Your task to perform on an android device: turn smart compose on in the gmail app Image 0: 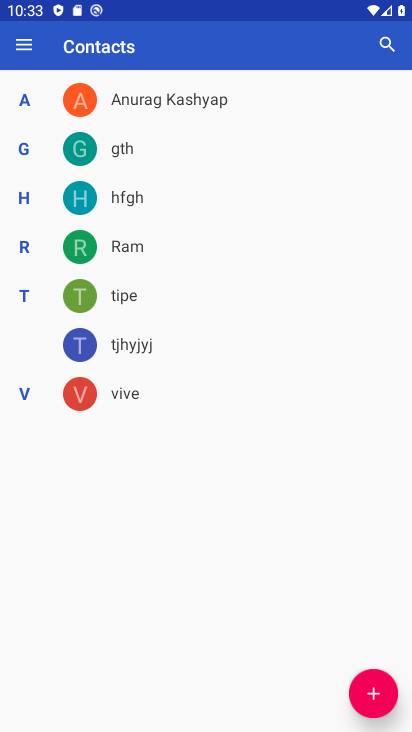
Step 0: press home button
Your task to perform on an android device: turn smart compose on in the gmail app Image 1: 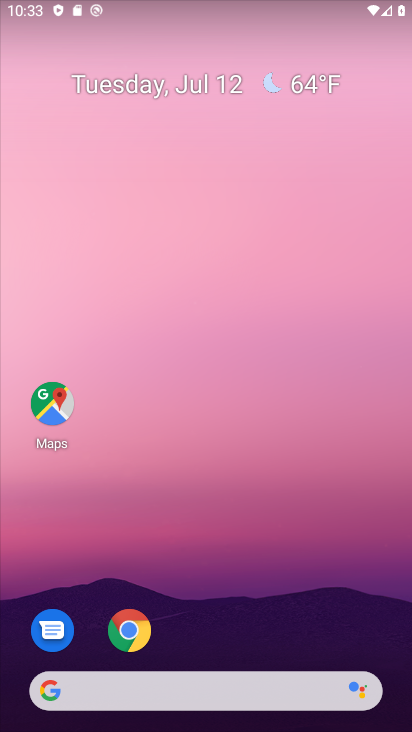
Step 1: drag from (351, 639) to (353, 140)
Your task to perform on an android device: turn smart compose on in the gmail app Image 2: 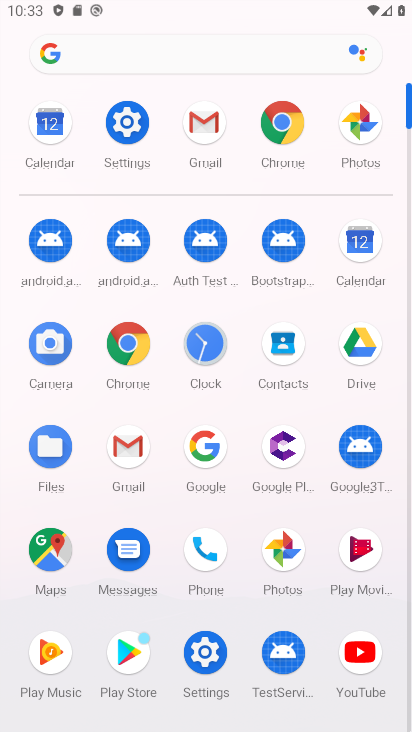
Step 2: click (131, 449)
Your task to perform on an android device: turn smart compose on in the gmail app Image 3: 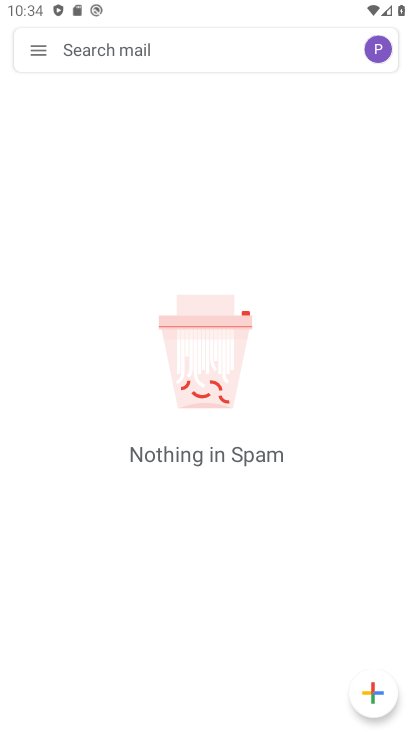
Step 3: click (41, 49)
Your task to perform on an android device: turn smart compose on in the gmail app Image 4: 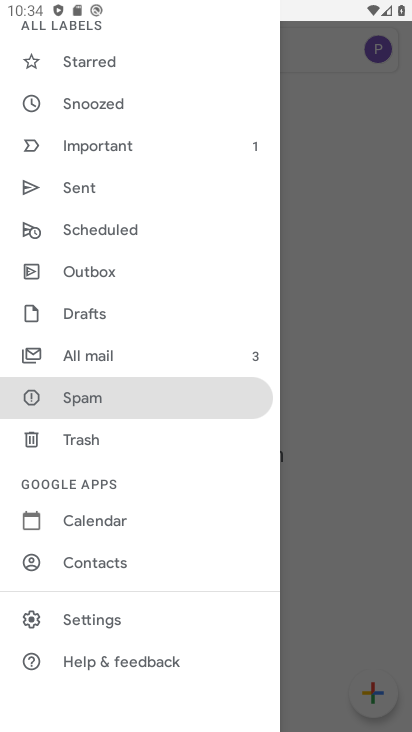
Step 4: drag from (201, 293) to (198, 199)
Your task to perform on an android device: turn smart compose on in the gmail app Image 5: 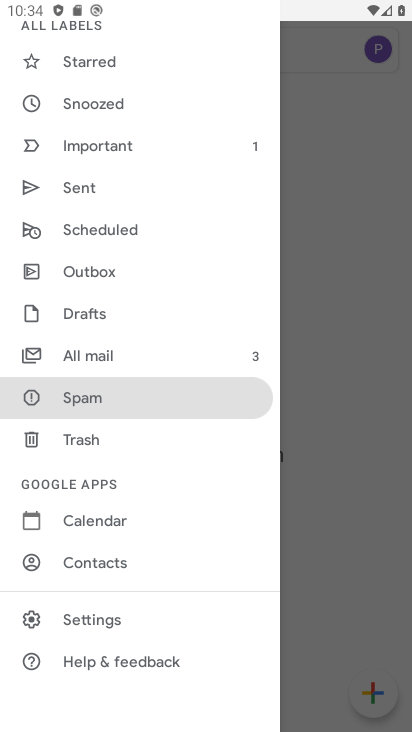
Step 5: click (170, 624)
Your task to perform on an android device: turn smart compose on in the gmail app Image 6: 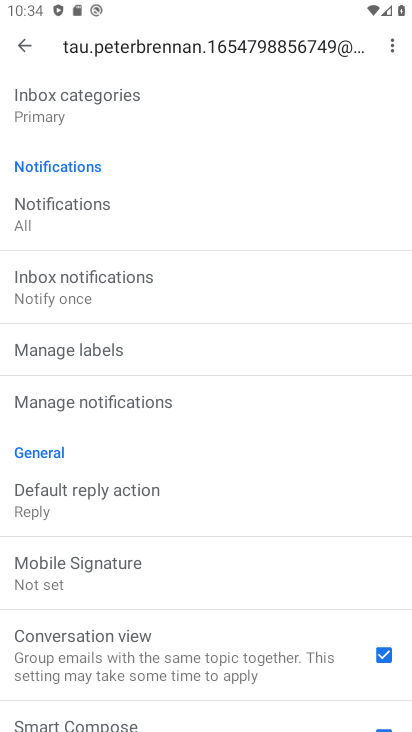
Step 6: task complete